Your task to perform on an android device: open app "Calculator" (install if not already installed) Image 0: 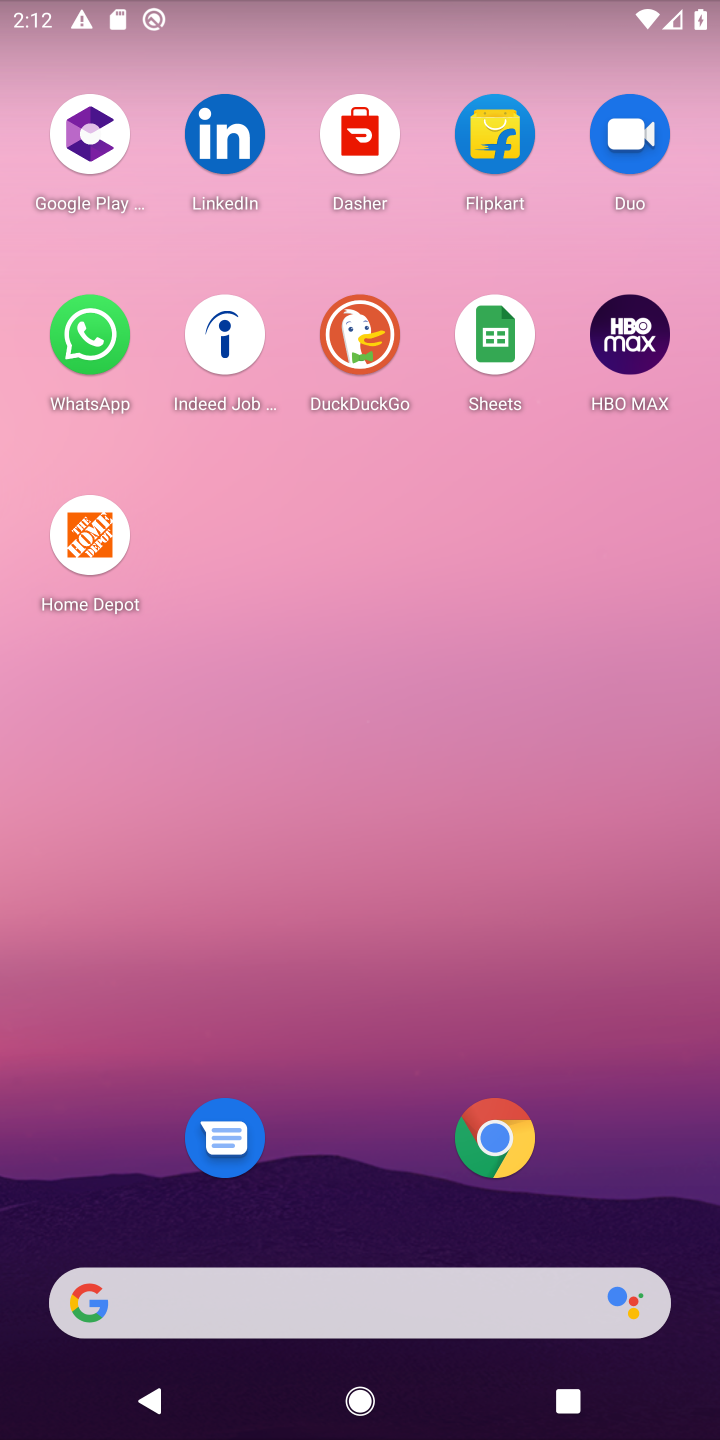
Step 0: press home button
Your task to perform on an android device: open app "Calculator" (install if not already installed) Image 1: 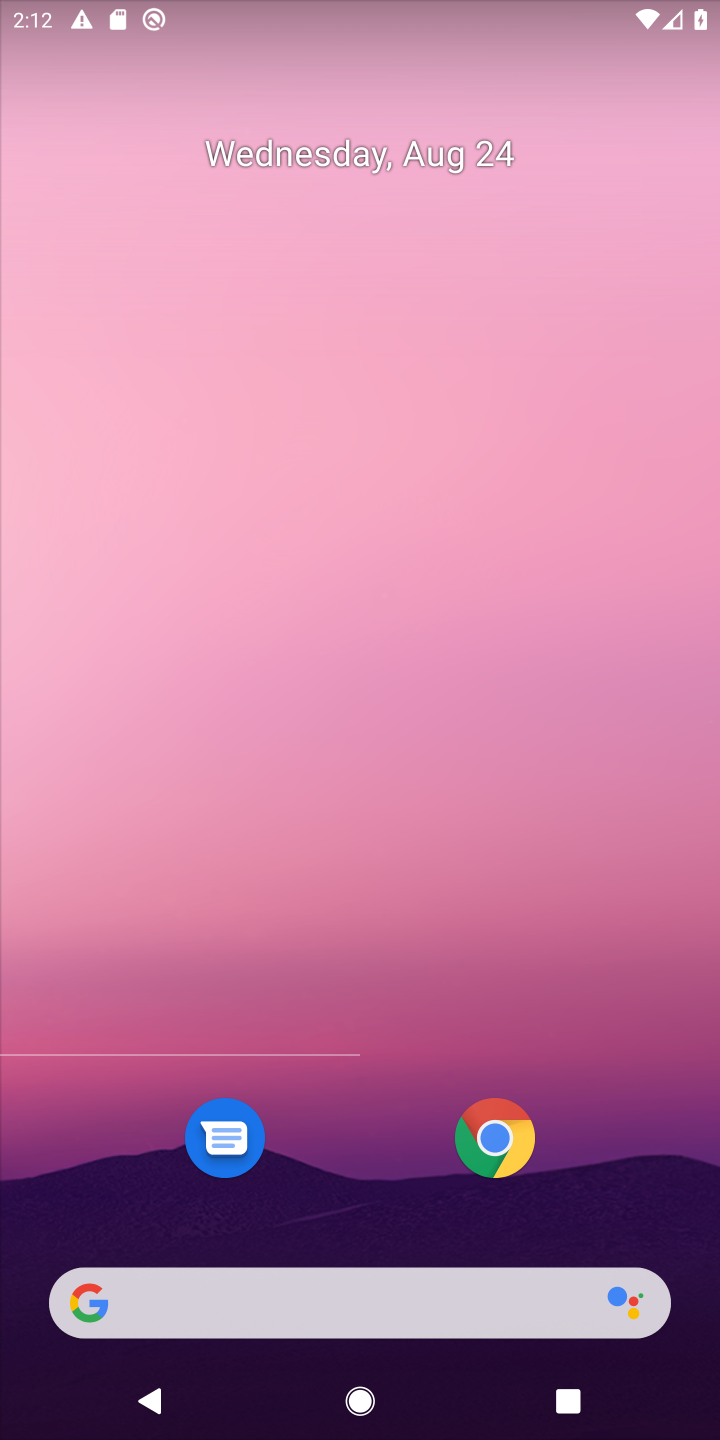
Step 1: click (347, 280)
Your task to perform on an android device: open app "Calculator" (install if not already installed) Image 2: 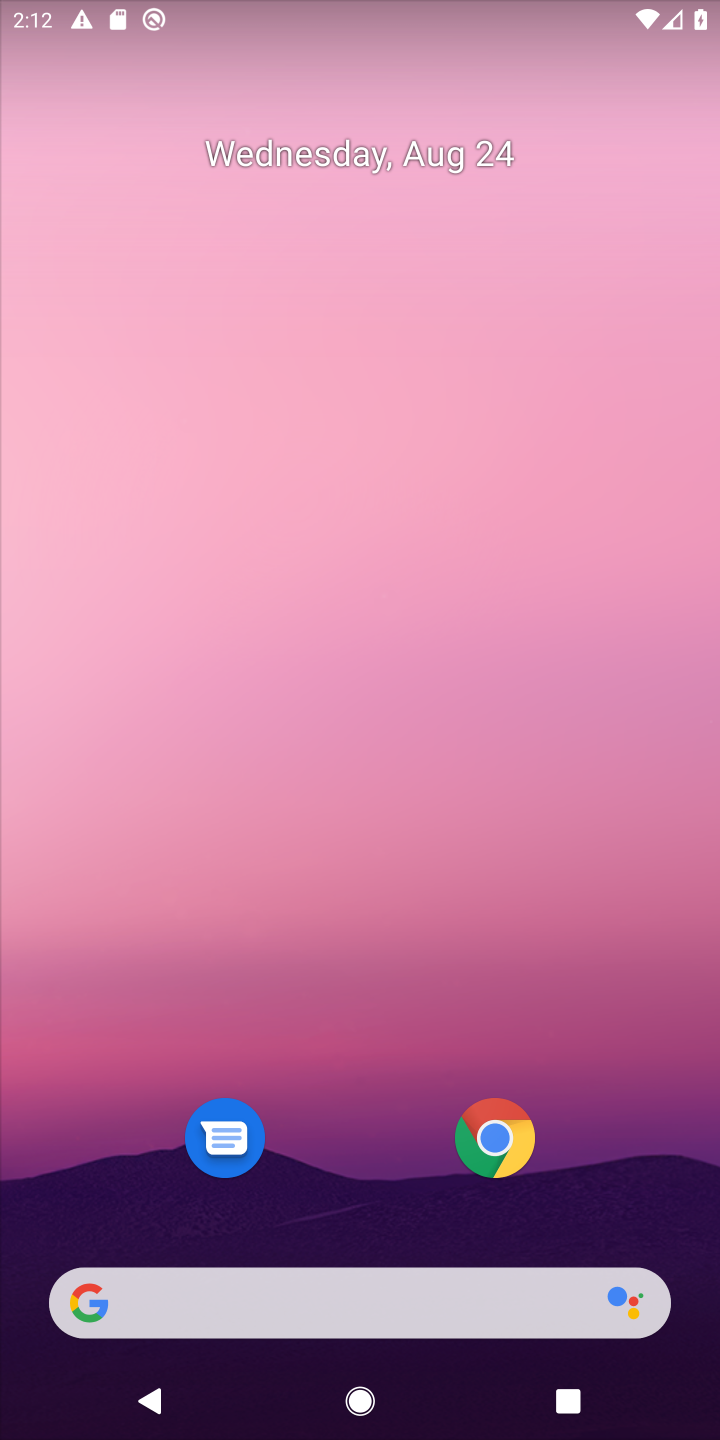
Step 2: drag from (322, 1067) to (317, 133)
Your task to perform on an android device: open app "Calculator" (install if not already installed) Image 3: 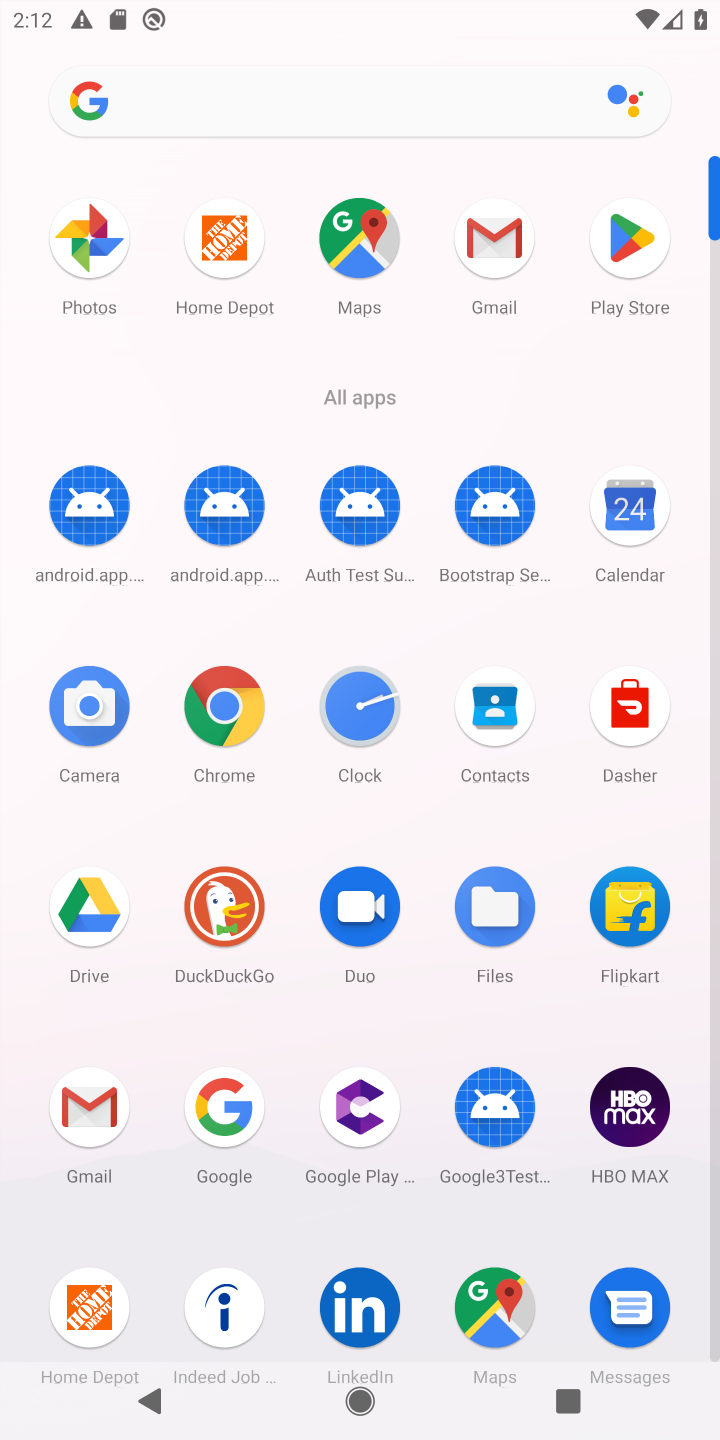
Step 3: click (627, 237)
Your task to perform on an android device: open app "Calculator" (install if not already installed) Image 4: 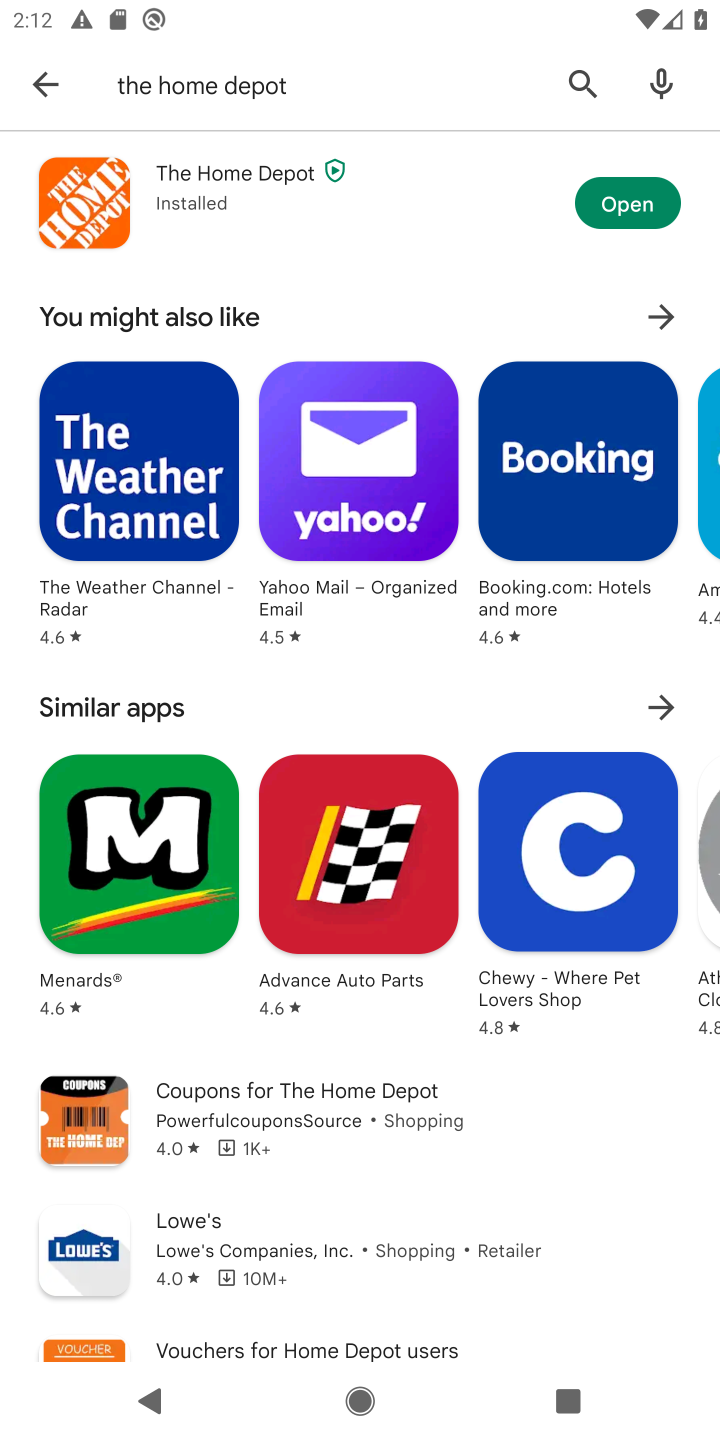
Step 4: click (582, 73)
Your task to perform on an android device: open app "Calculator" (install if not already installed) Image 5: 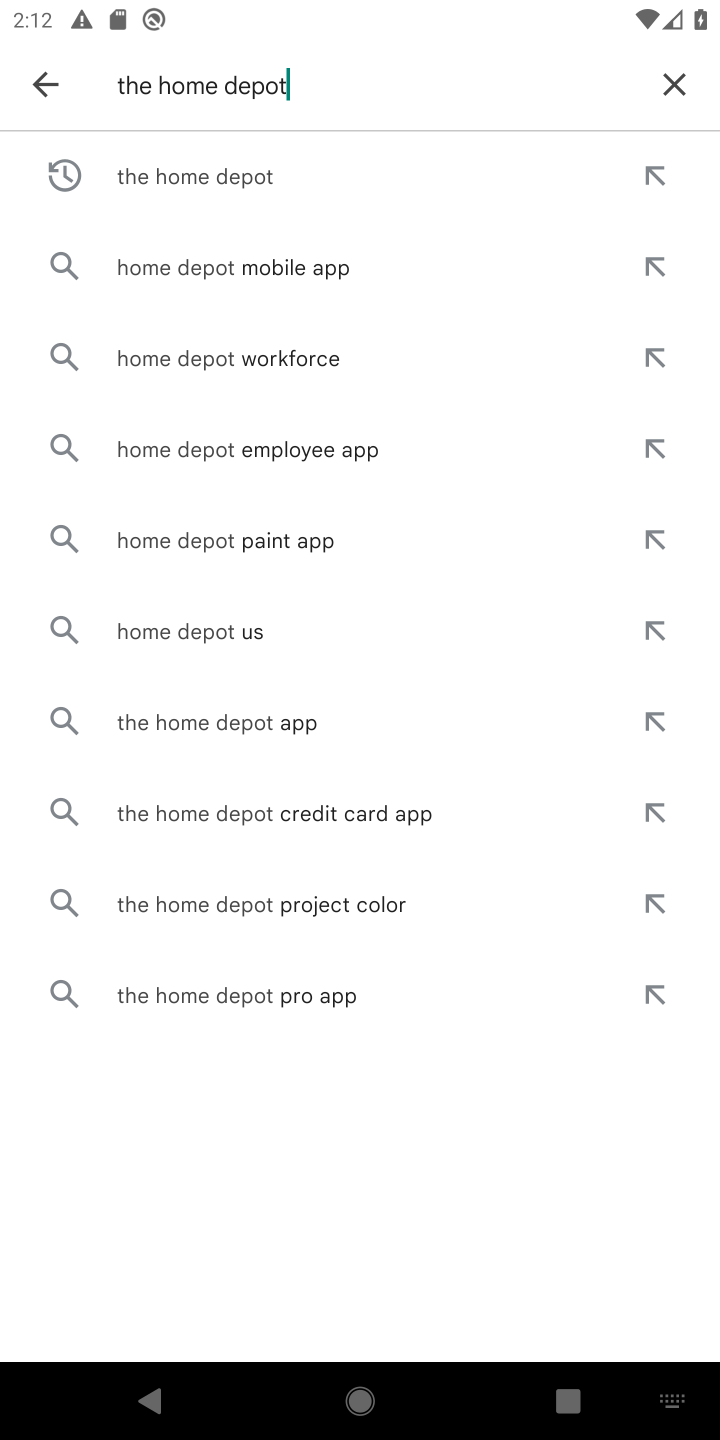
Step 5: click (668, 85)
Your task to perform on an android device: open app "Calculator" (install if not already installed) Image 6: 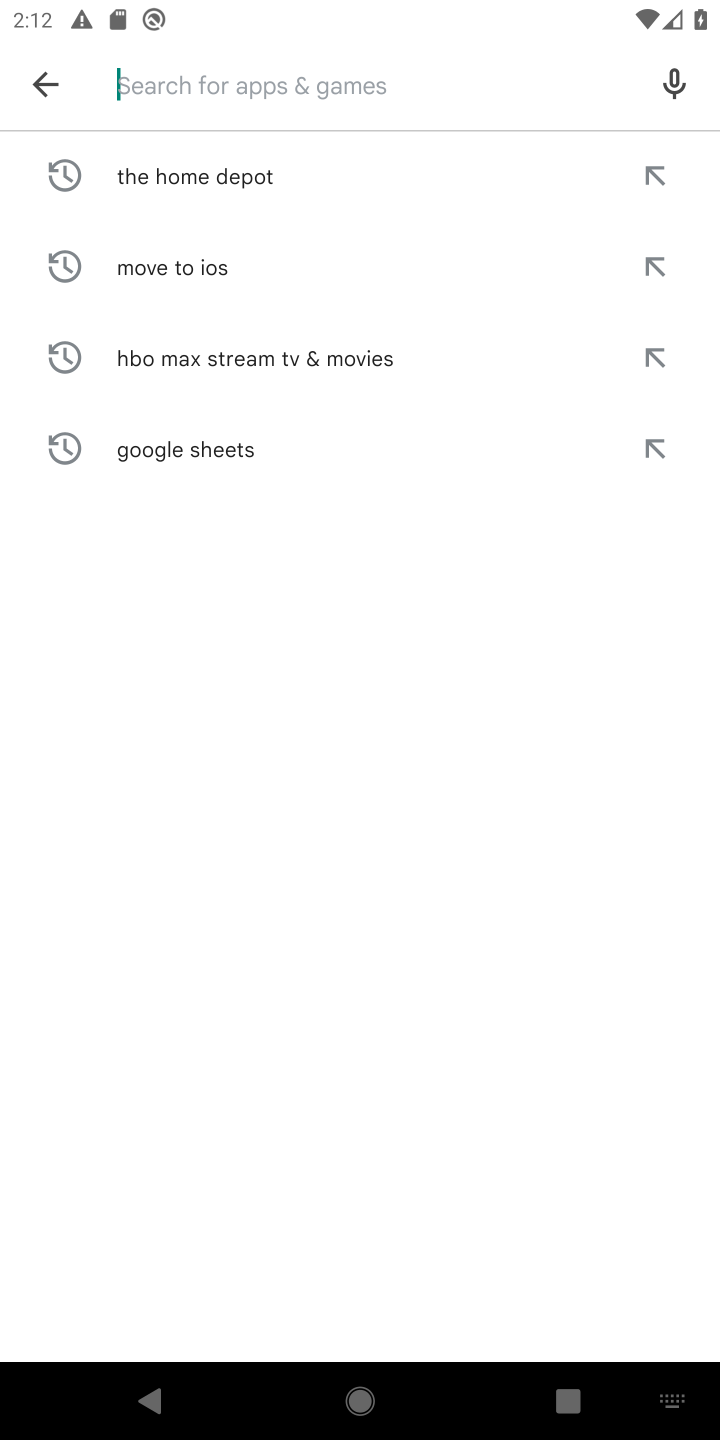
Step 6: type "Calculator"
Your task to perform on an android device: open app "Calculator" (install if not already installed) Image 7: 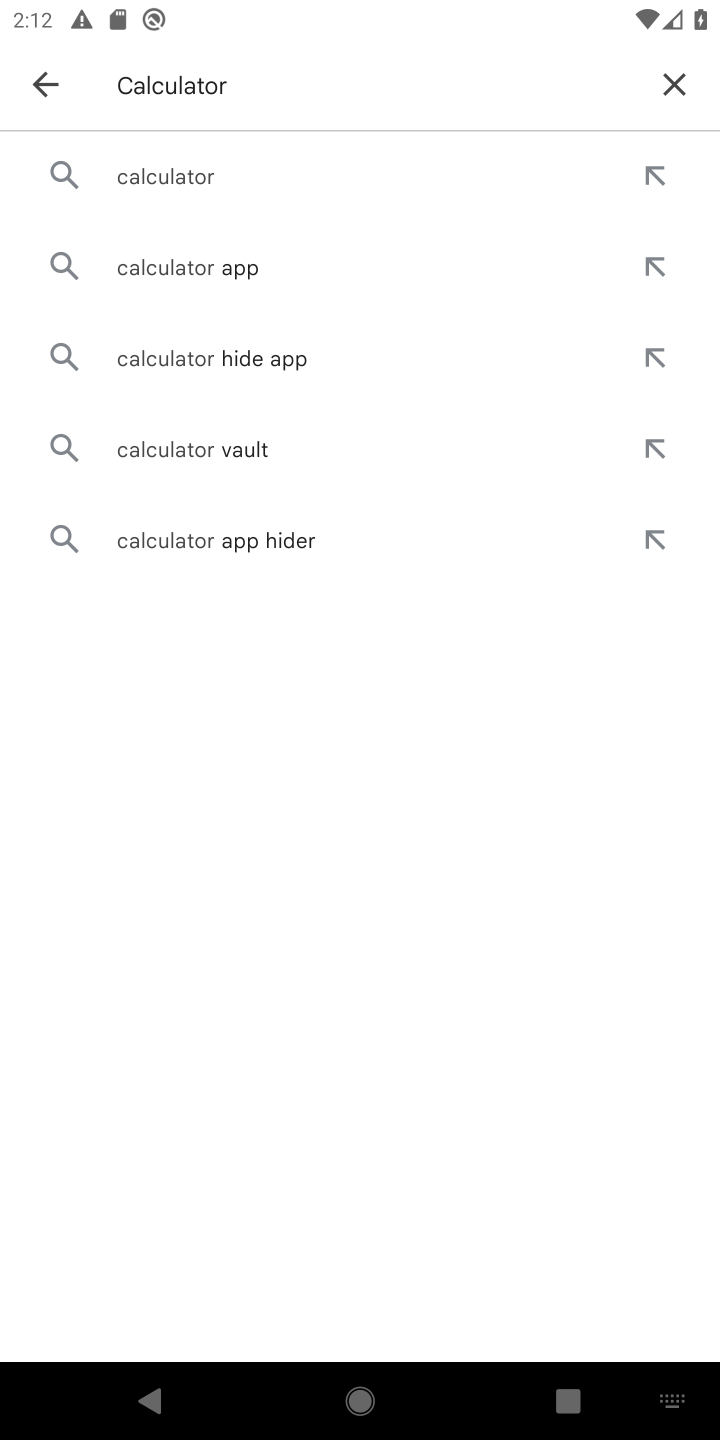
Step 7: click (183, 177)
Your task to perform on an android device: open app "Calculator" (install if not already installed) Image 8: 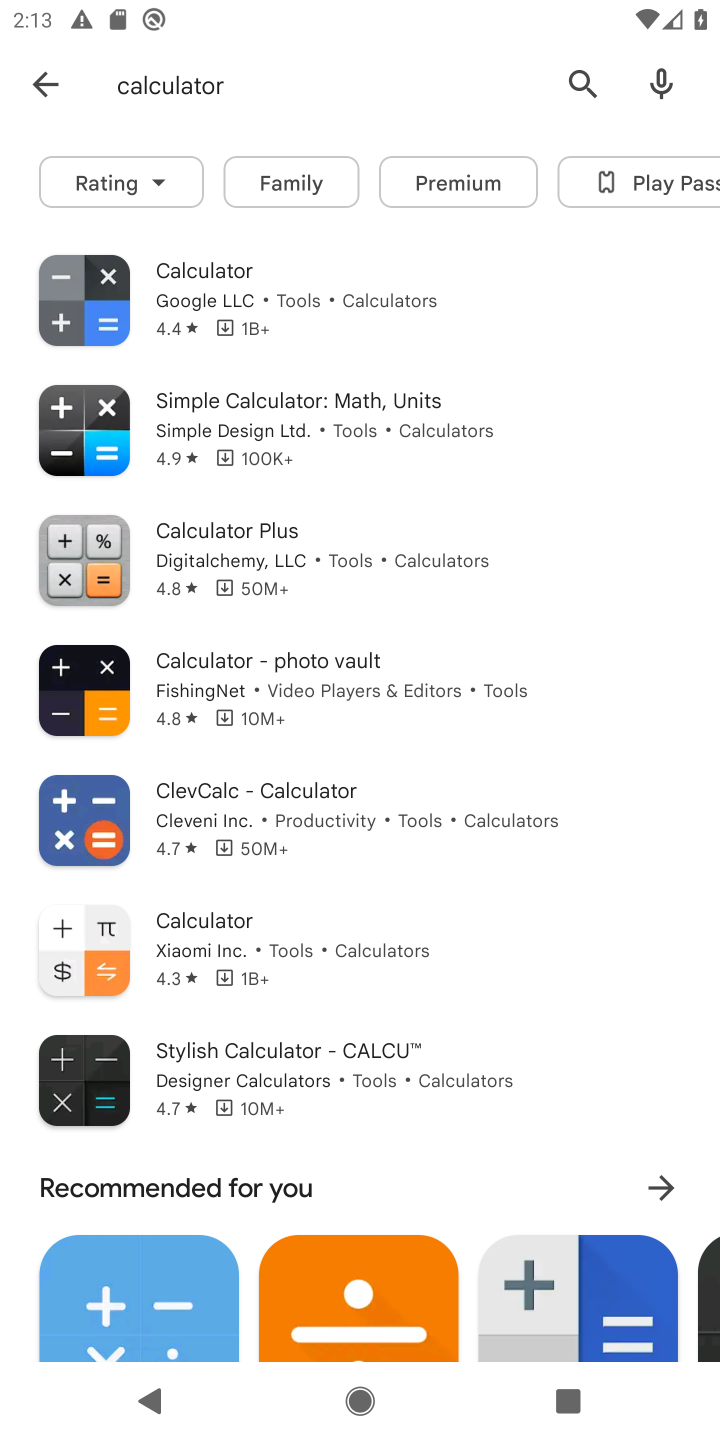
Step 8: click (210, 283)
Your task to perform on an android device: open app "Calculator" (install if not already installed) Image 9: 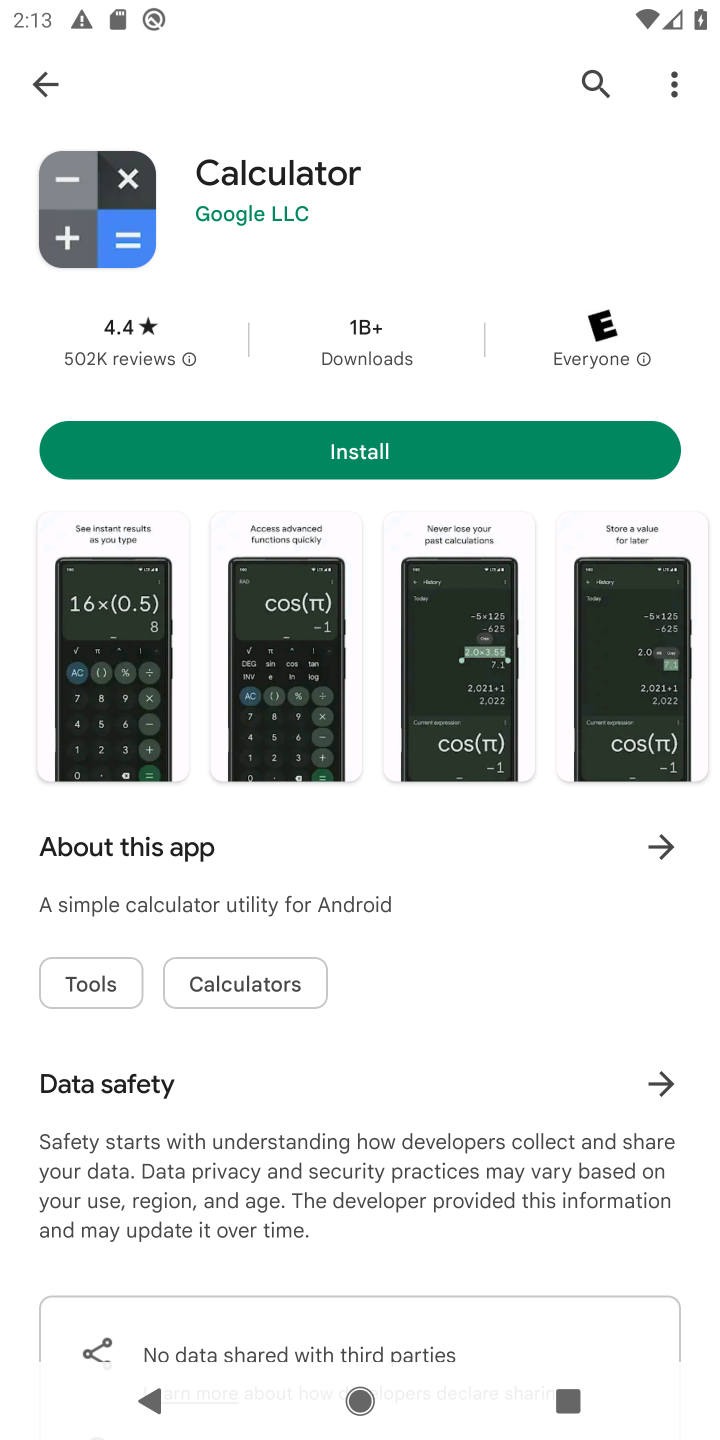
Step 9: click (361, 457)
Your task to perform on an android device: open app "Calculator" (install if not already installed) Image 10: 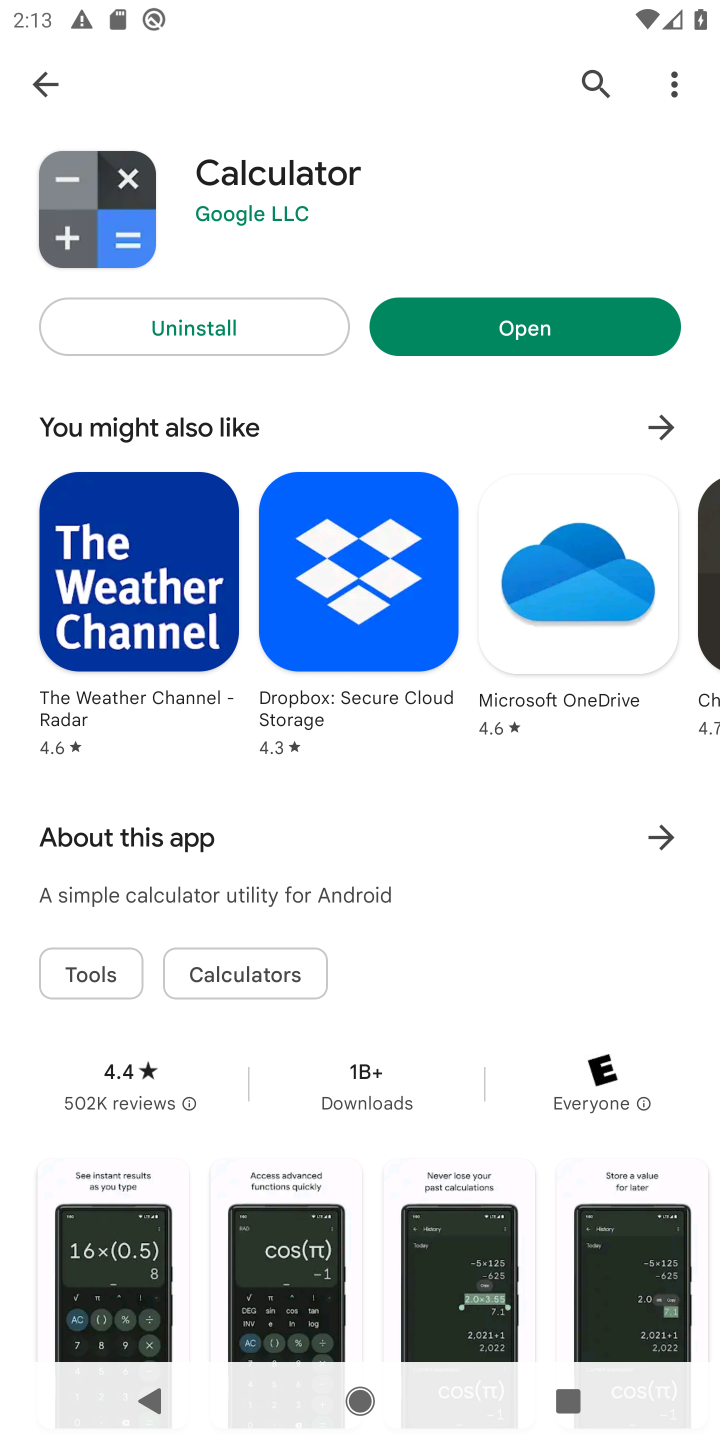
Step 10: click (537, 322)
Your task to perform on an android device: open app "Calculator" (install if not already installed) Image 11: 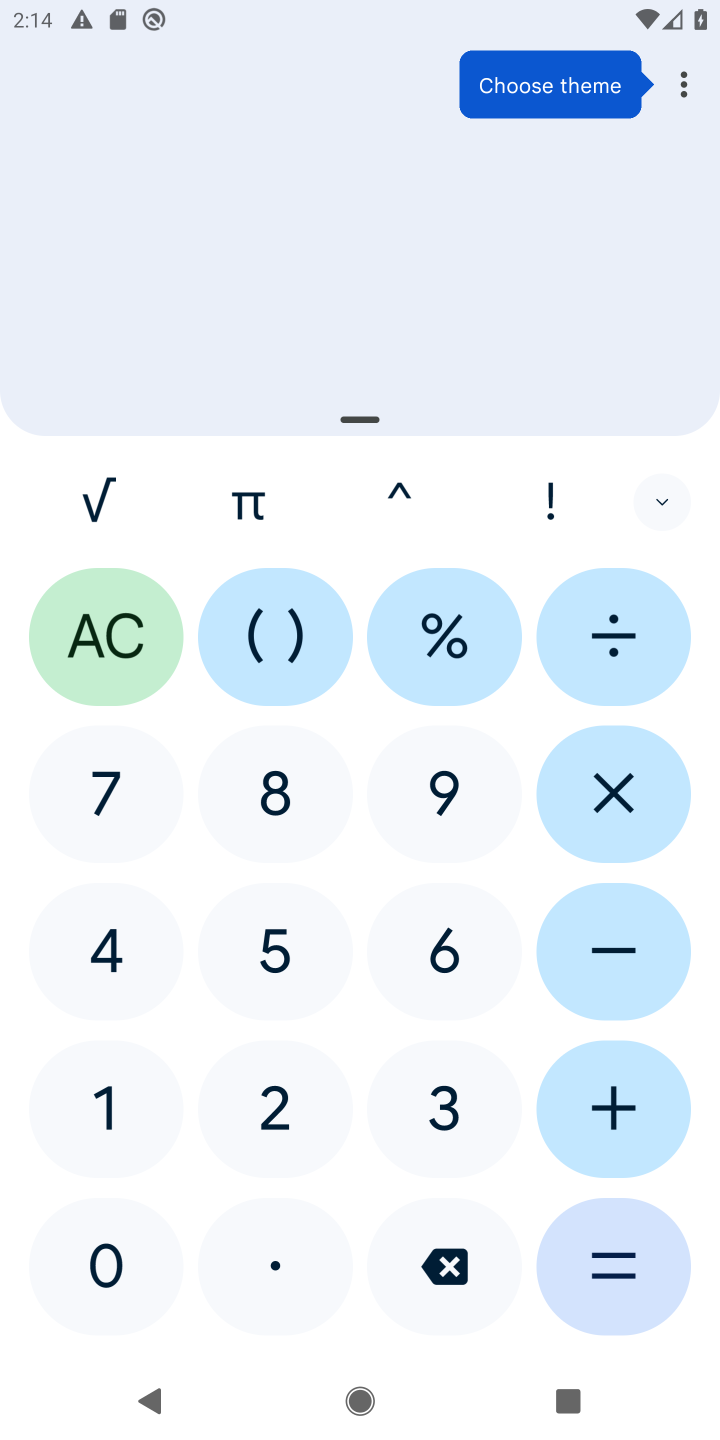
Step 11: task complete